Your task to perform on an android device: Open the web browser Image 0: 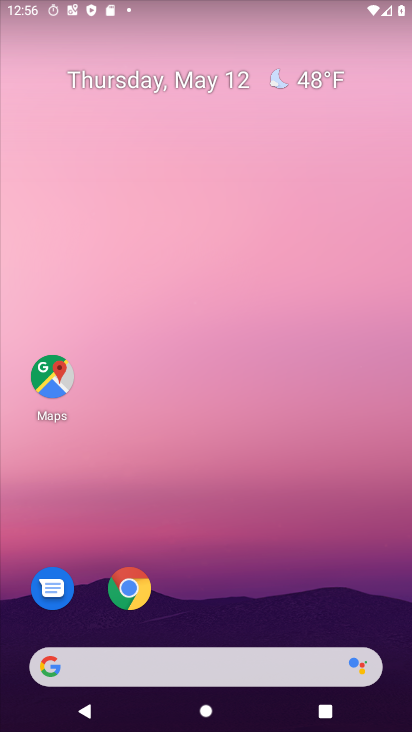
Step 0: drag from (235, 614) to (238, 95)
Your task to perform on an android device: Open the web browser Image 1: 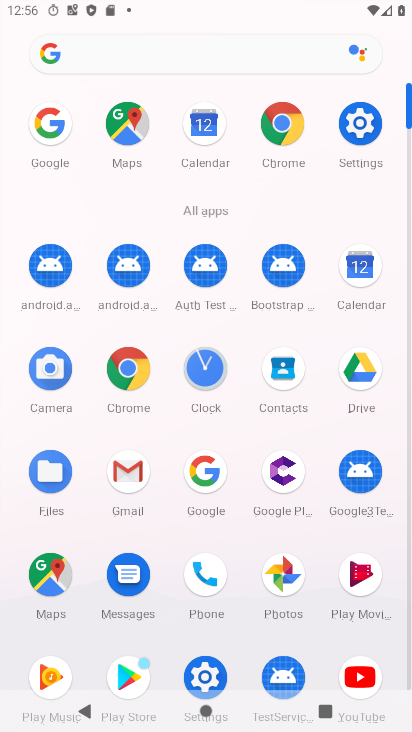
Step 1: click (45, 119)
Your task to perform on an android device: Open the web browser Image 2: 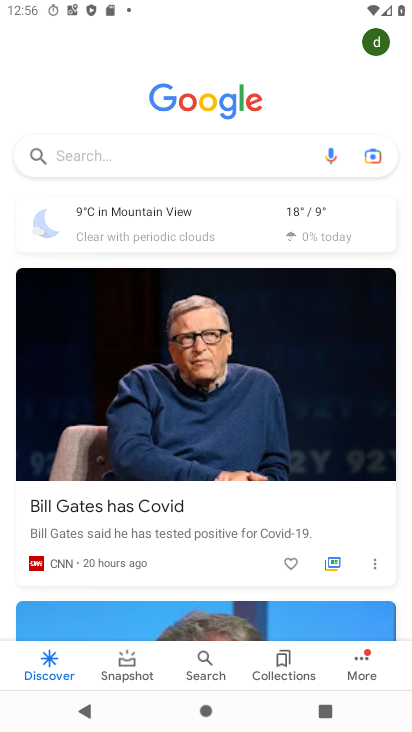
Step 2: task complete